Your task to perform on an android device: What's on my calendar tomorrow? Image 0: 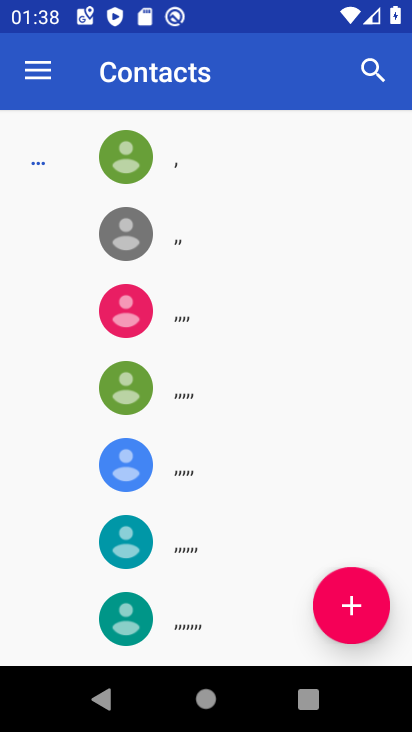
Step 0: press home button
Your task to perform on an android device: What's on my calendar tomorrow? Image 1: 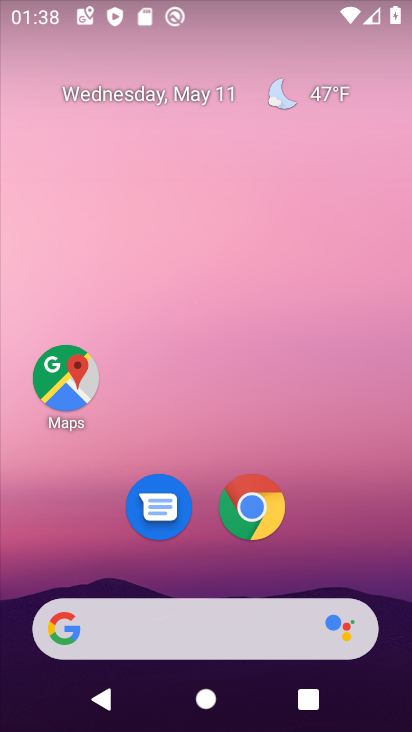
Step 1: drag from (309, 554) to (153, 114)
Your task to perform on an android device: What's on my calendar tomorrow? Image 2: 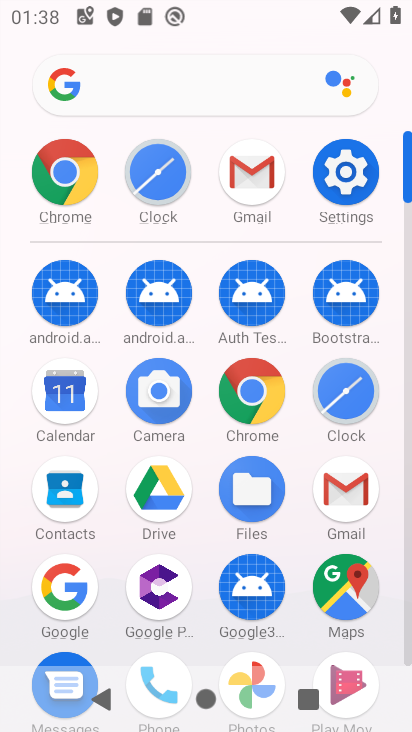
Step 2: click (61, 397)
Your task to perform on an android device: What's on my calendar tomorrow? Image 3: 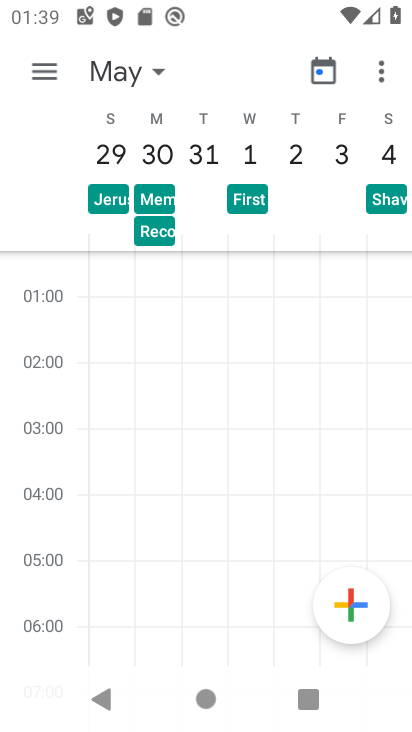
Step 3: click (41, 61)
Your task to perform on an android device: What's on my calendar tomorrow? Image 4: 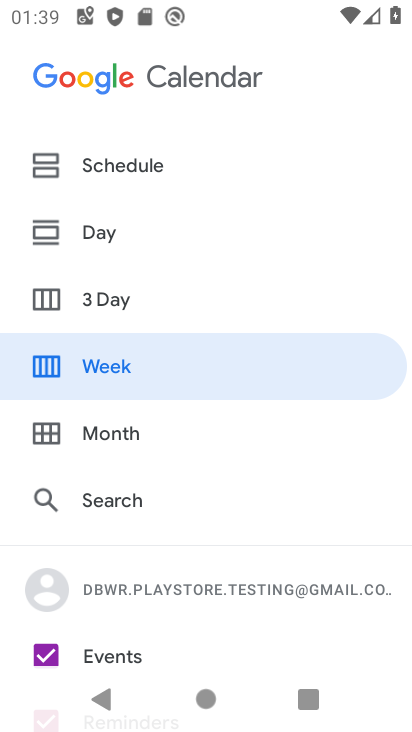
Step 4: click (95, 236)
Your task to perform on an android device: What's on my calendar tomorrow? Image 5: 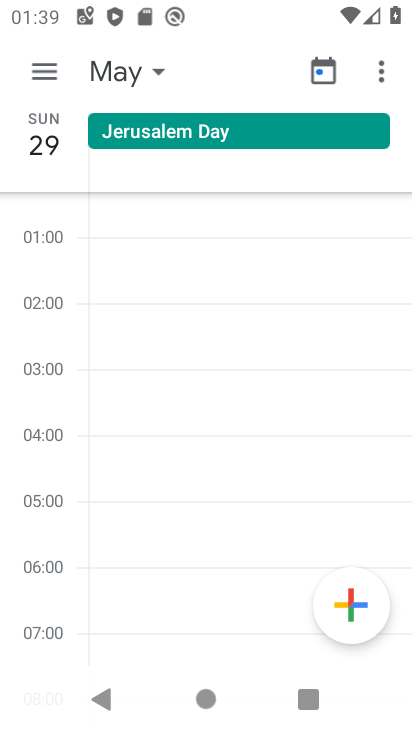
Step 5: click (152, 71)
Your task to perform on an android device: What's on my calendar tomorrow? Image 6: 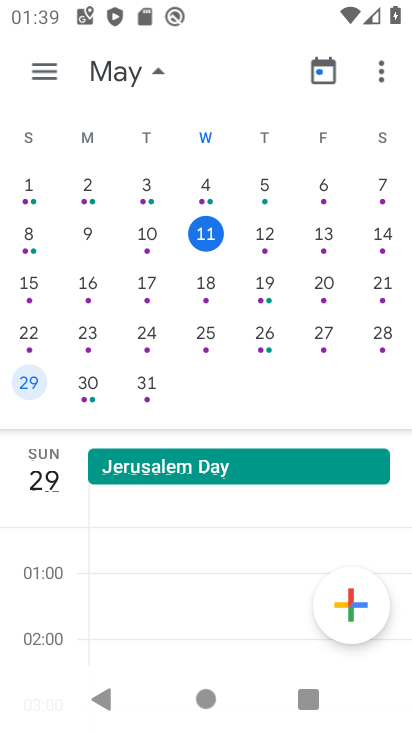
Step 6: click (202, 242)
Your task to perform on an android device: What's on my calendar tomorrow? Image 7: 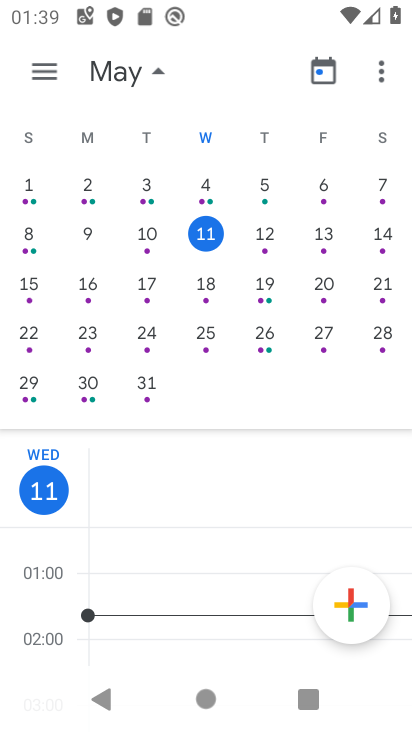
Step 7: task complete